Your task to perform on an android device: change your default location settings in chrome Image 0: 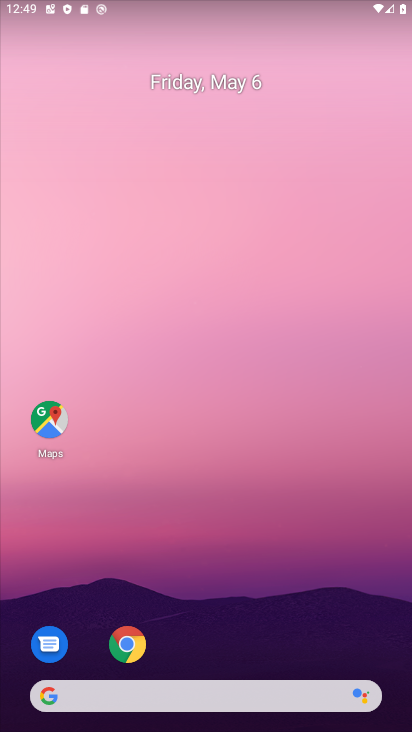
Step 0: drag from (277, 690) to (311, 68)
Your task to perform on an android device: change your default location settings in chrome Image 1: 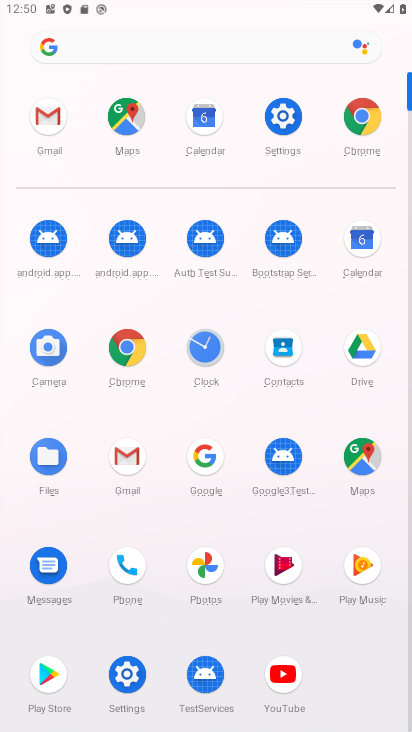
Step 1: click (124, 350)
Your task to perform on an android device: change your default location settings in chrome Image 2: 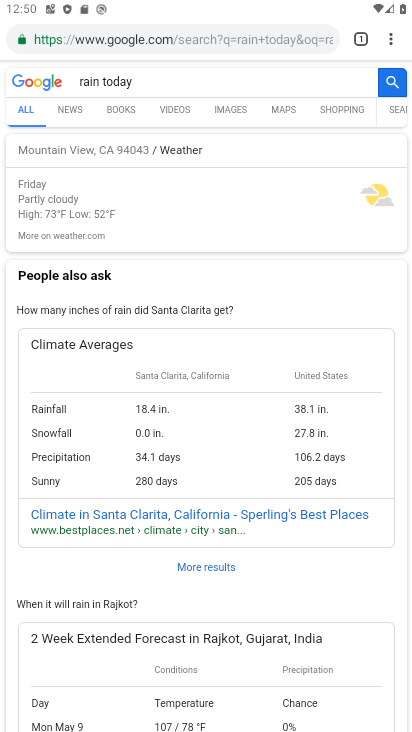
Step 2: click (384, 37)
Your task to perform on an android device: change your default location settings in chrome Image 3: 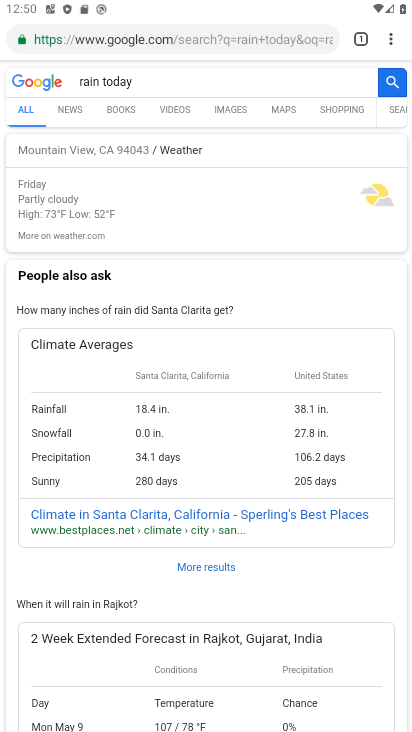
Step 3: drag from (394, 34) to (251, 430)
Your task to perform on an android device: change your default location settings in chrome Image 4: 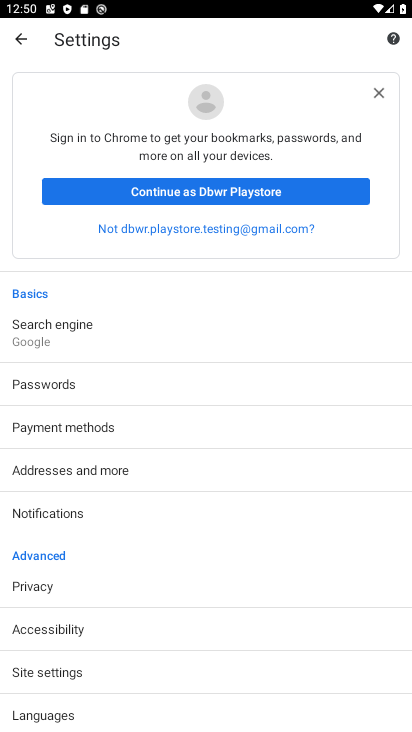
Step 4: drag from (95, 680) to (117, 479)
Your task to perform on an android device: change your default location settings in chrome Image 5: 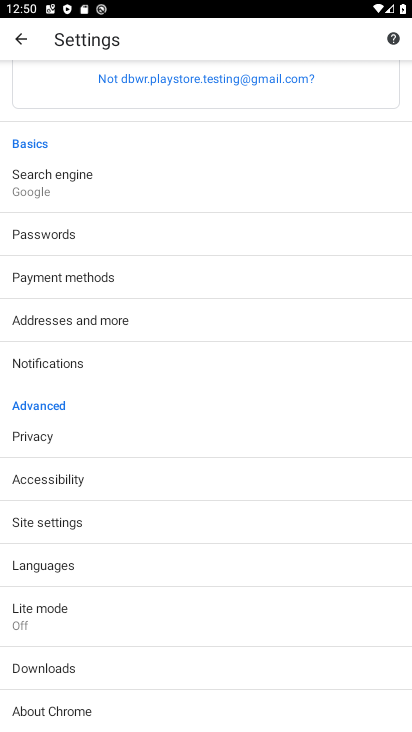
Step 5: click (103, 521)
Your task to perform on an android device: change your default location settings in chrome Image 6: 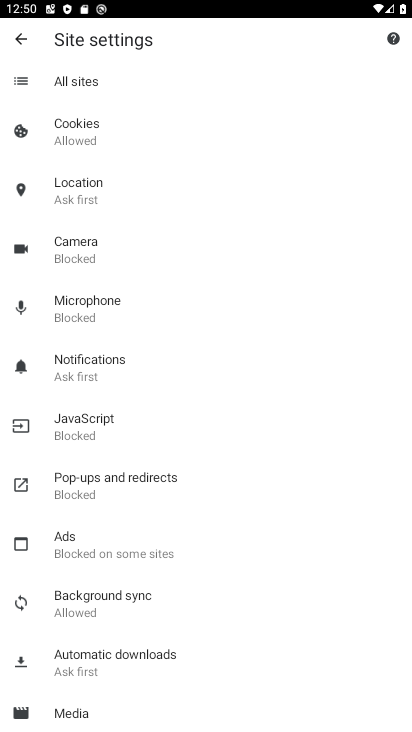
Step 6: click (109, 188)
Your task to perform on an android device: change your default location settings in chrome Image 7: 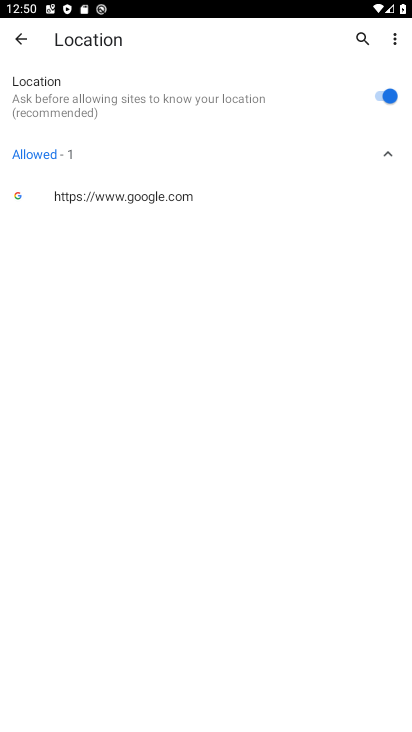
Step 7: click (379, 97)
Your task to perform on an android device: change your default location settings in chrome Image 8: 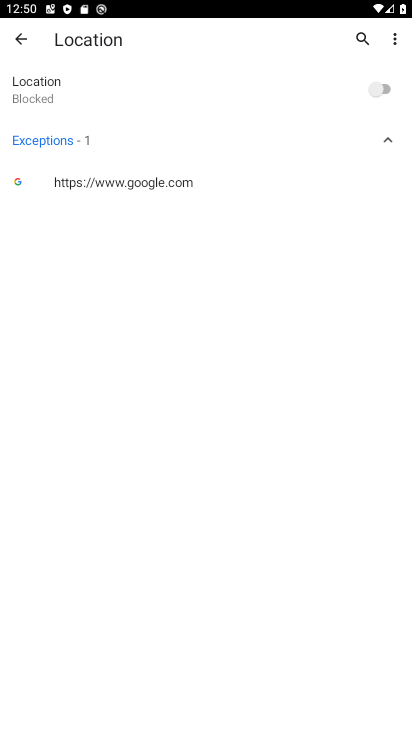
Step 8: task complete